Your task to perform on an android device: toggle notifications settings in the gmail app Image 0: 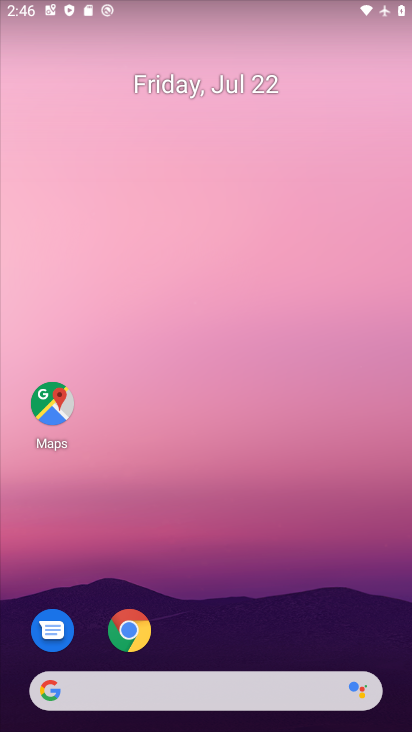
Step 0: drag from (212, 670) to (185, 89)
Your task to perform on an android device: toggle notifications settings in the gmail app Image 1: 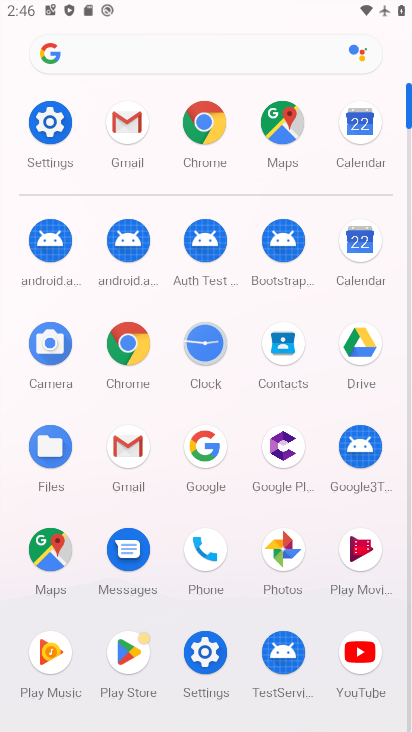
Step 1: click (129, 446)
Your task to perform on an android device: toggle notifications settings in the gmail app Image 2: 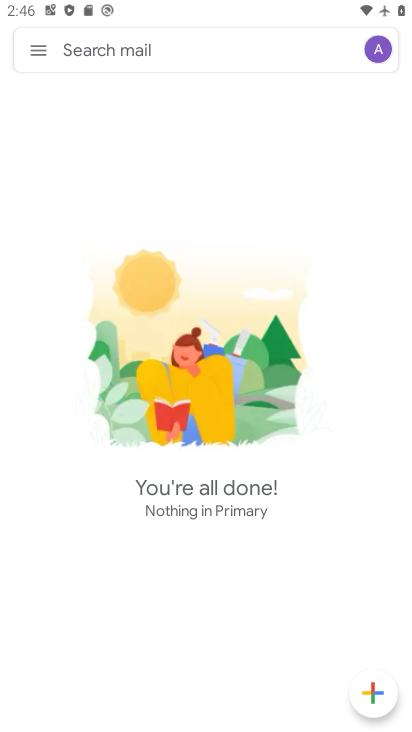
Step 2: click (32, 36)
Your task to perform on an android device: toggle notifications settings in the gmail app Image 3: 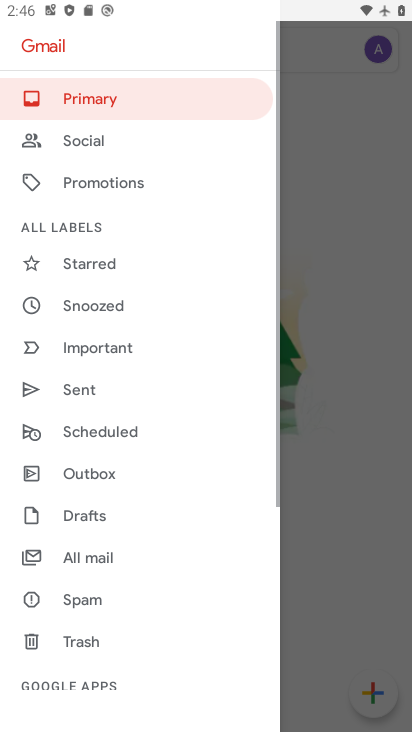
Step 3: drag from (83, 649) to (61, 159)
Your task to perform on an android device: toggle notifications settings in the gmail app Image 4: 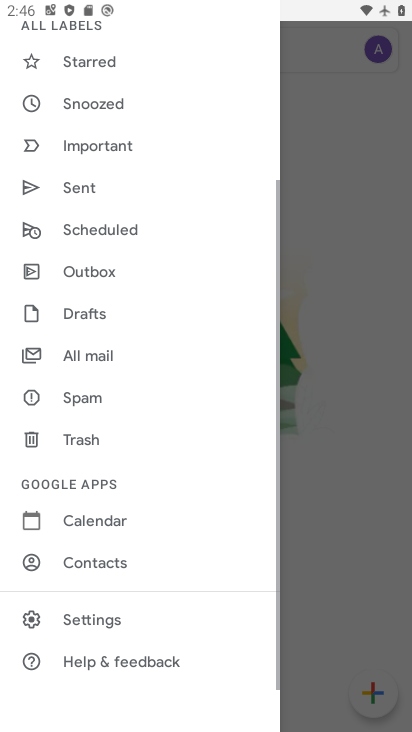
Step 4: click (134, 612)
Your task to perform on an android device: toggle notifications settings in the gmail app Image 5: 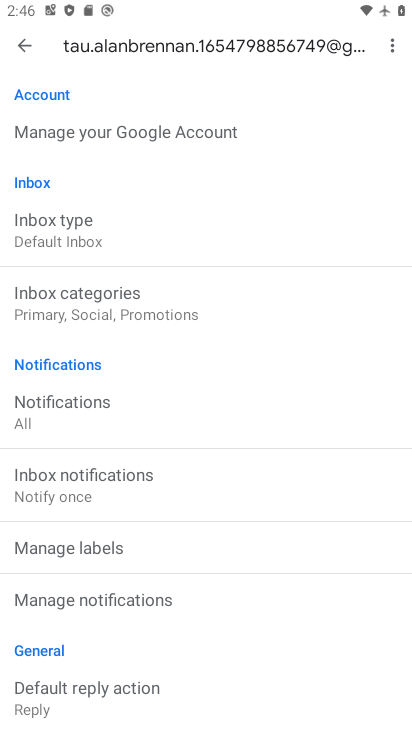
Step 5: click (14, 50)
Your task to perform on an android device: toggle notifications settings in the gmail app Image 6: 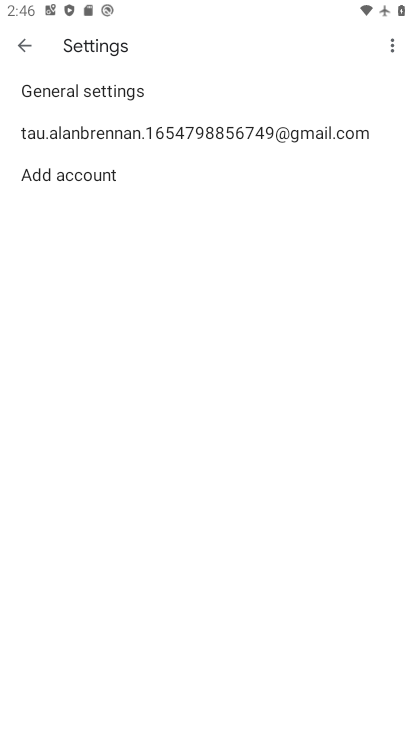
Step 6: click (23, 43)
Your task to perform on an android device: toggle notifications settings in the gmail app Image 7: 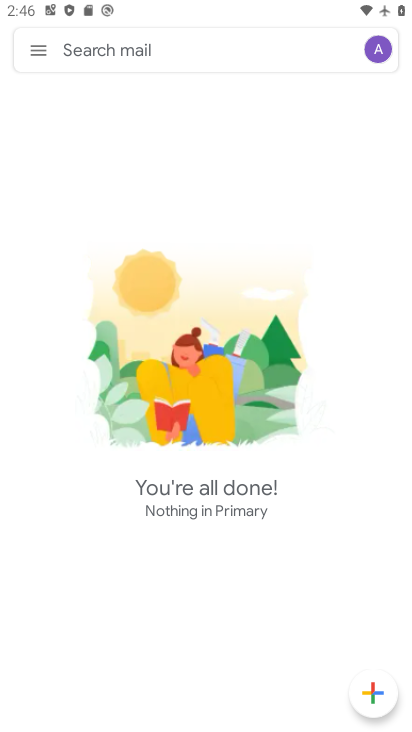
Step 7: click (36, 55)
Your task to perform on an android device: toggle notifications settings in the gmail app Image 8: 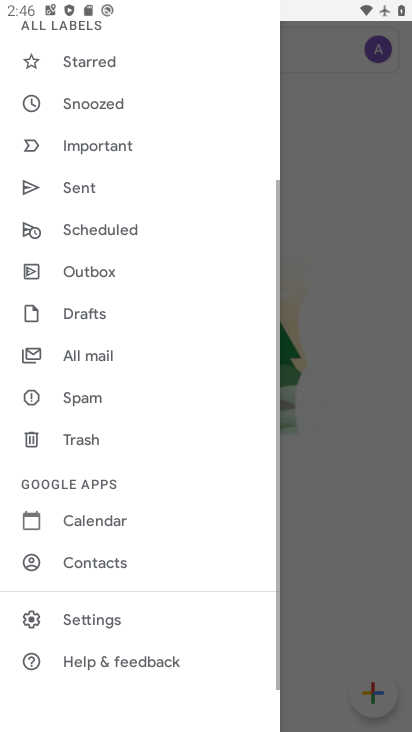
Step 8: click (99, 627)
Your task to perform on an android device: toggle notifications settings in the gmail app Image 9: 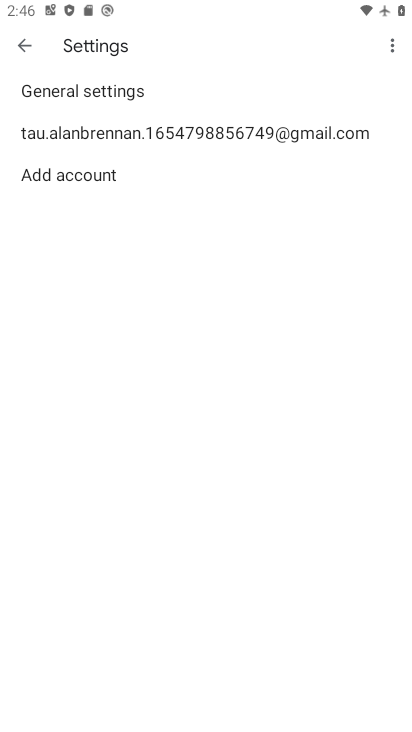
Step 9: click (69, 89)
Your task to perform on an android device: toggle notifications settings in the gmail app Image 10: 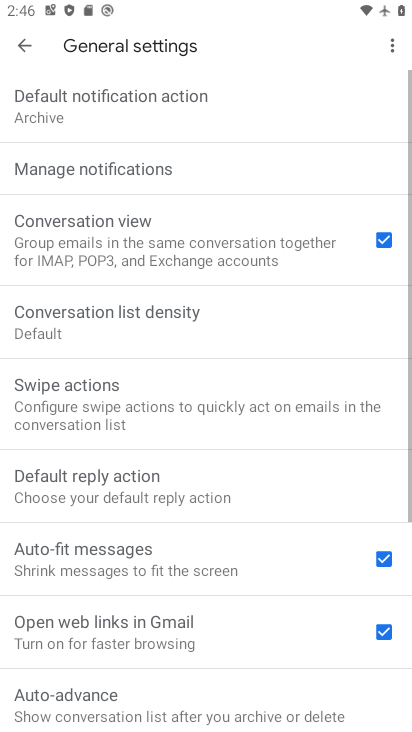
Step 10: click (114, 159)
Your task to perform on an android device: toggle notifications settings in the gmail app Image 11: 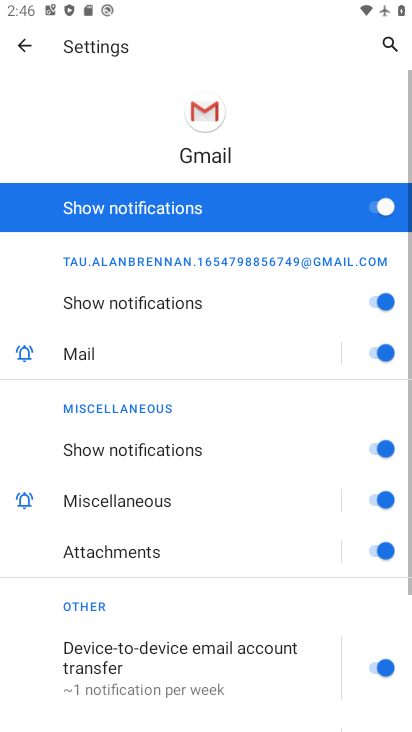
Step 11: click (364, 212)
Your task to perform on an android device: toggle notifications settings in the gmail app Image 12: 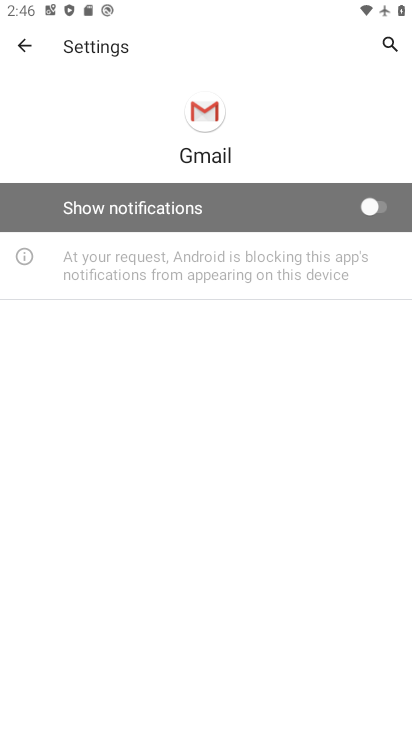
Step 12: task complete